Your task to perform on an android device: toggle data saver in the chrome app Image 0: 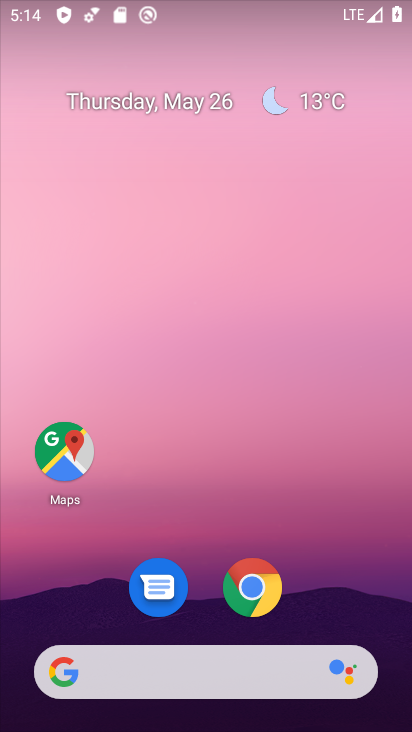
Step 0: click (257, 586)
Your task to perform on an android device: toggle data saver in the chrome app Image 1: 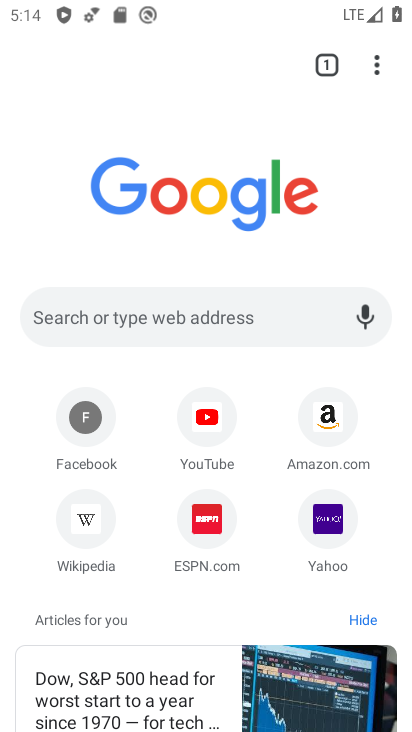
Step 1: click (378, 69)
Your task to perform on an android device: toggle data saver in the chrome app Image 2: 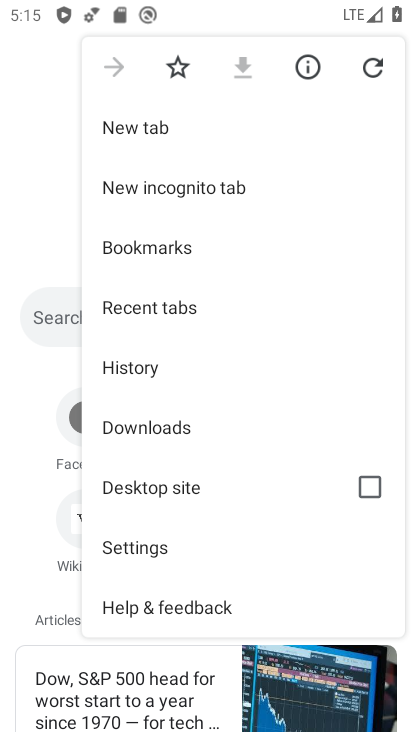
Step 2: click (145, 544)
Your task to perform on an android device: toggle data saver in the chrome app Image 3: 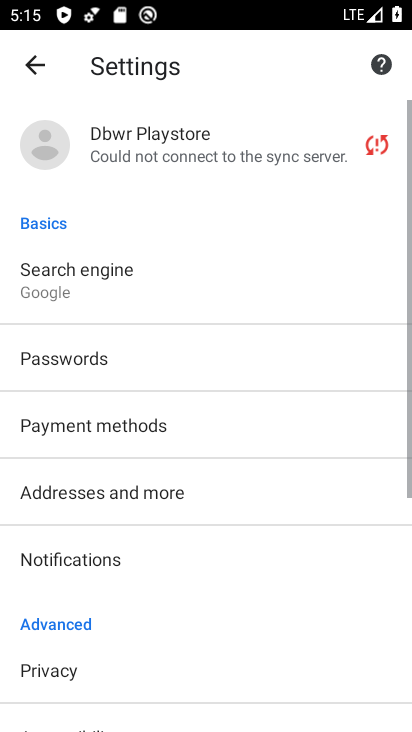
Step 3: drag from (142, 686) to (129, 294)
Your task to perform on an android device: toggle data saver in the chrome app Image 4: 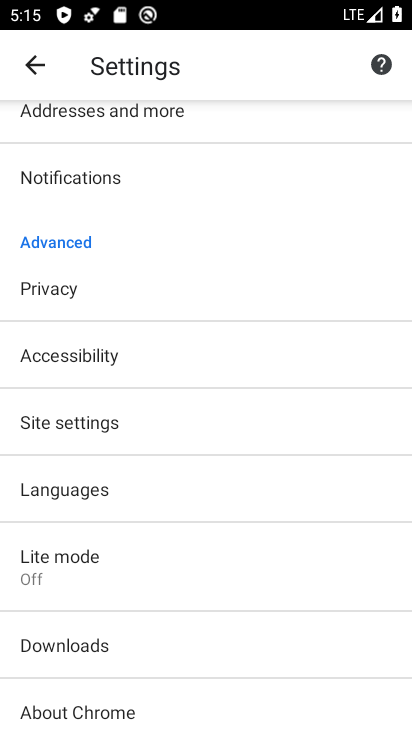
Step 4: click (93, 560)
Your task to perform on an android device: toggle data saver in the chrome app Image 5: 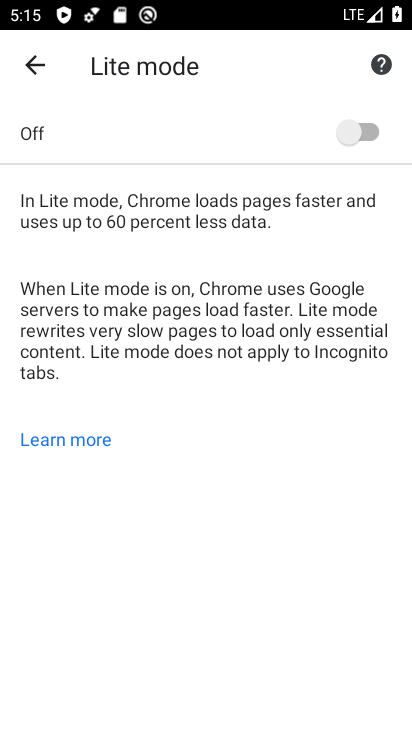
Step 5: click (361, 134)
Your task to perform on an android device: toggle data saver in the chrome app Image 6: 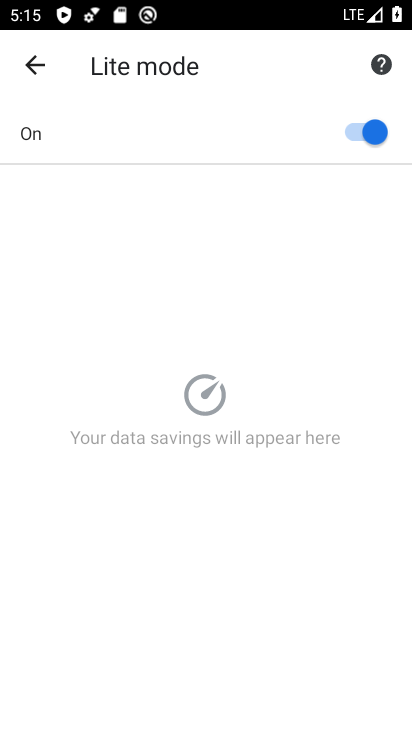
Step 6: task complete